Your task to perform on an android device: Search for pizza restaurants on Maps Image 0: 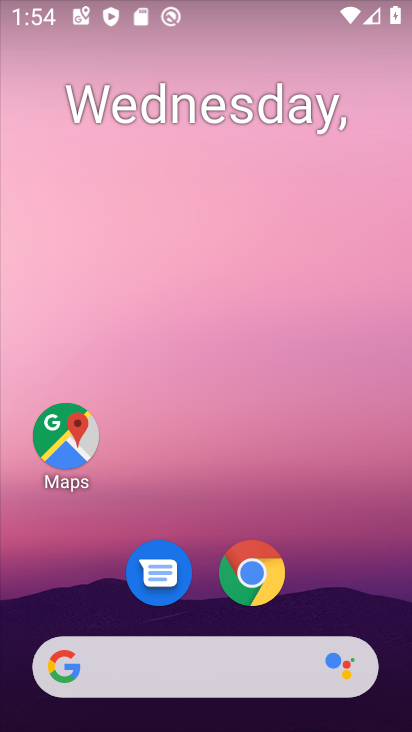
Step 0: click (63, 436)
Your task to perform on an android device: Search for pizza restaurants on Maps Image 1: 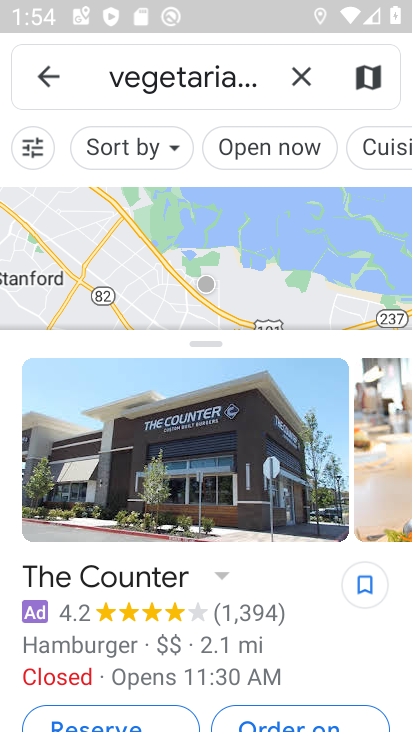
Step 1: click (293, 78)
Your task to perform on an android device: Search for pizza restaurants on Maps Image 2: 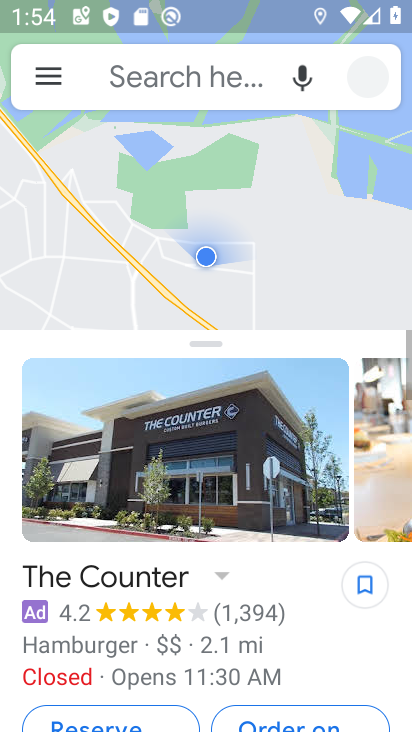
Step 2: click (172, 83)
Your task to perform on an android device: Search for pizza restaurants on Maps Image 3: 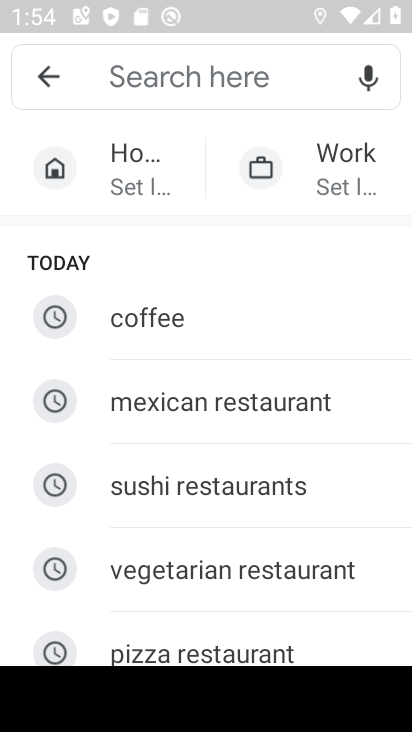
Step 3: click (222, 647)
Your task to perform on an android device: Search for pizza restaurants on Maps Image 4: 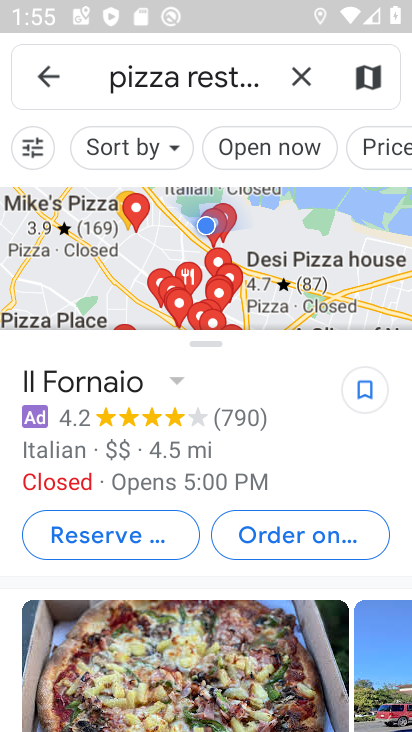
Step 4: task complete